Your task to perform on an android device: change notification settings in the gmail app Image 0: 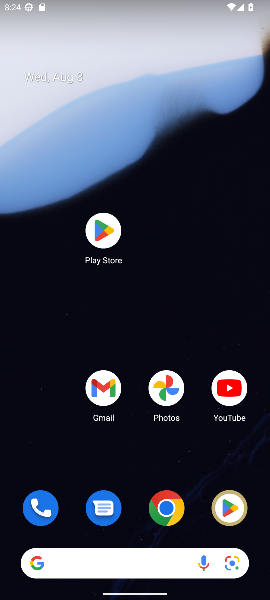
Step 0: drag from (140, 540) to (131, 22)
Your task to perform on an android device: change notification settings in the gmail app Image 1: 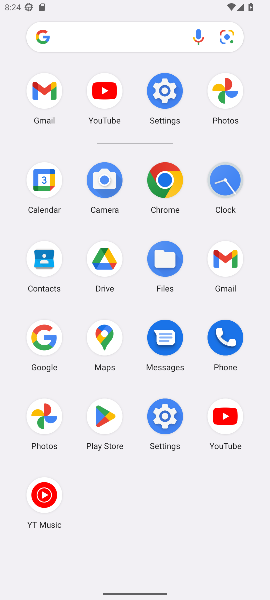
Step 1: click (222, 262)
Your task to perform on an android device: change notification settings in the gmail app Image 2: 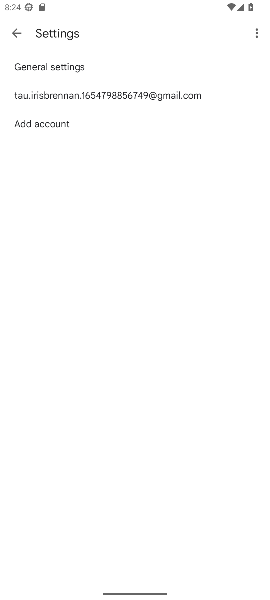
Step 2: click (50, 67)
Your task to perform on an android device: change notification settings in the gmail app Image 3: 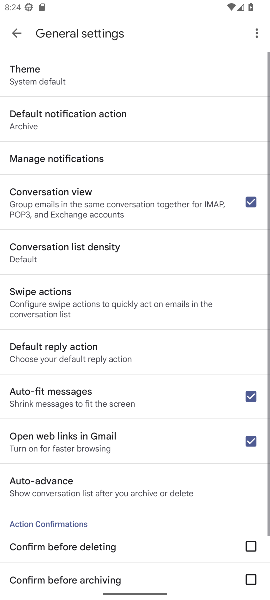
Step 3: click (36, 164)
Your task to perform on an android device: change notification settings in the gmail app Image 4: 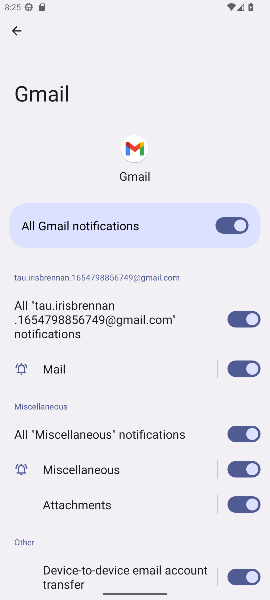
Step 4: click (212, 223)
Your task to perform on an android device: change notification settings in the gmail app Image 5: 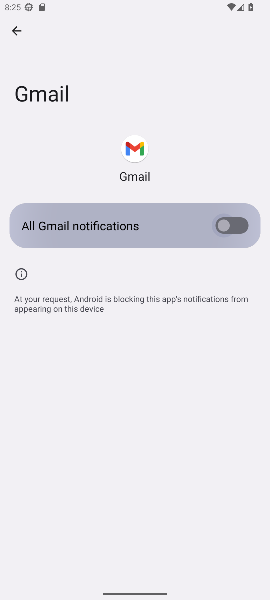
Step 5: task complete